Your task to perform on an android device: Open settings on Google Maps Image 0: 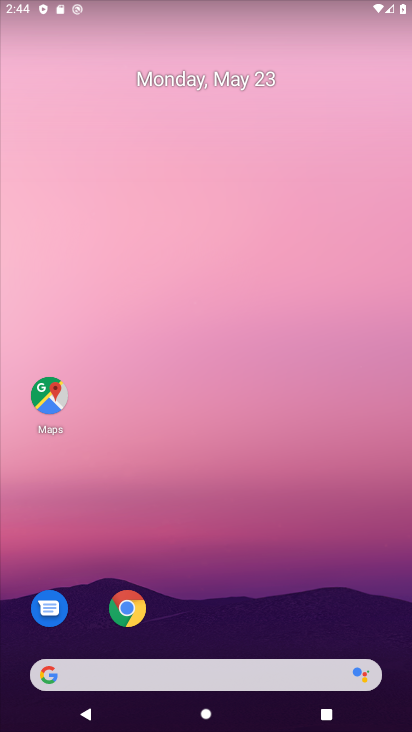
Step 0: drag from (210, 558) to (194, 342)
Your task to perform on an android device: Open settings on Google Maps Image 1: 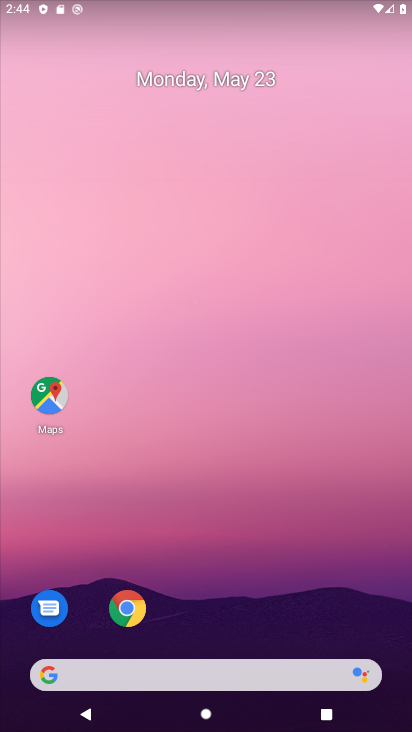
Step 1: click (37, 408)
Your task to perform on an android device: Open settings on Google Maps Image 2: 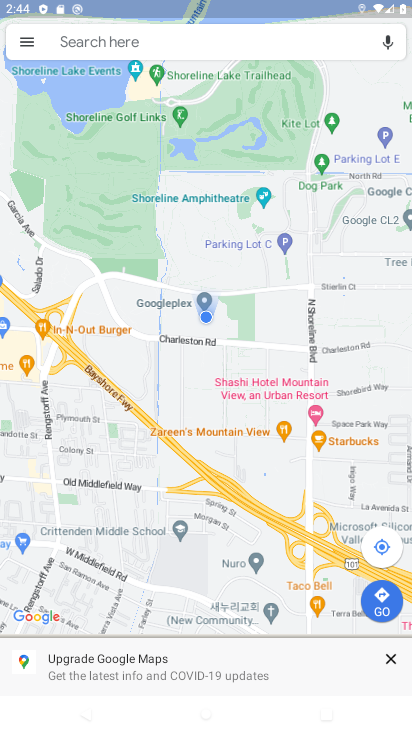
Step 2: click (26, 42)
Your task to perform on an android device: Open settings on Google Maps Image 3: 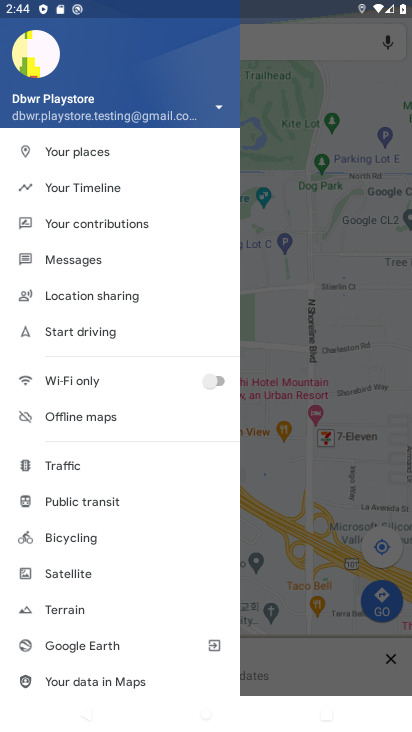
Step 3: drag from (81, 640) to (139, 293)
Your task to perform on an android device: Open settings on Google Maps Image 4: 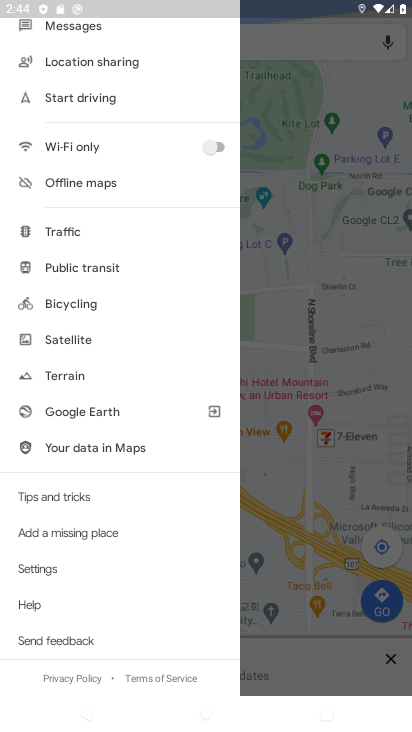
Step 4: click (53, 572)
Your task to perform on an android device: Open settings on Google Maps Image 5: 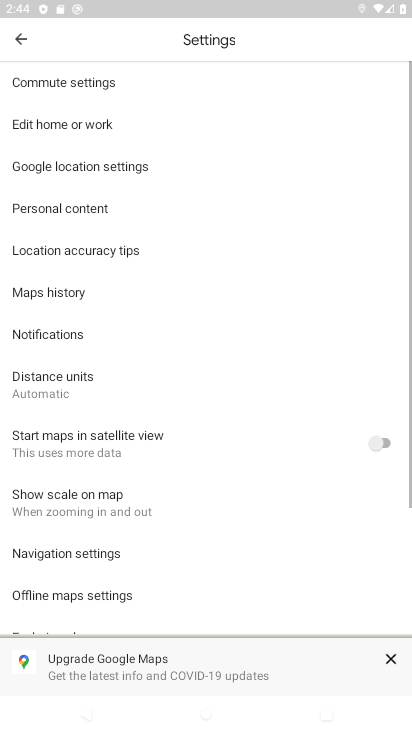
Step 5: task complete